Your task to perform on an android device: What's the weather? Image 0: 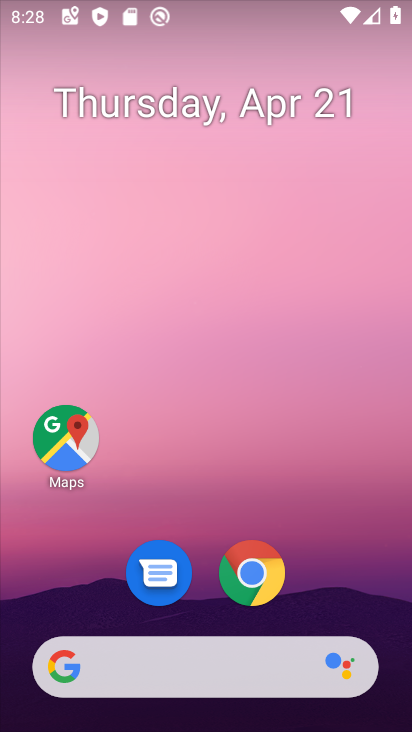
Step 0: drag from (69, 127) to (403, 197)
Your task to perform on an android device: What's the weather? Image 1: 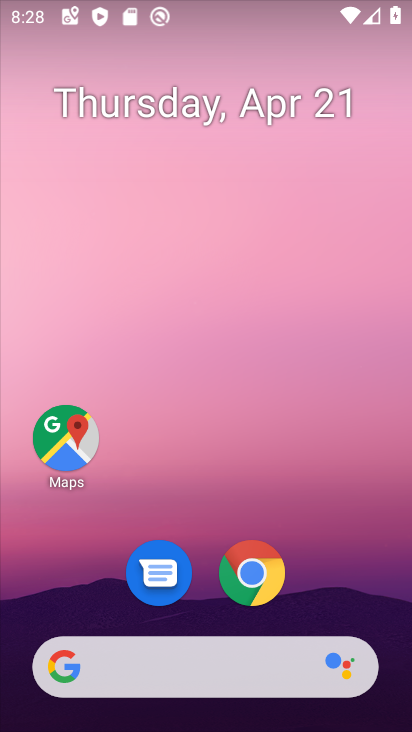
Step 1: drag from (7, 183) to (354, 0)
Your task to perform on an android device: What's the weather? Image 2: 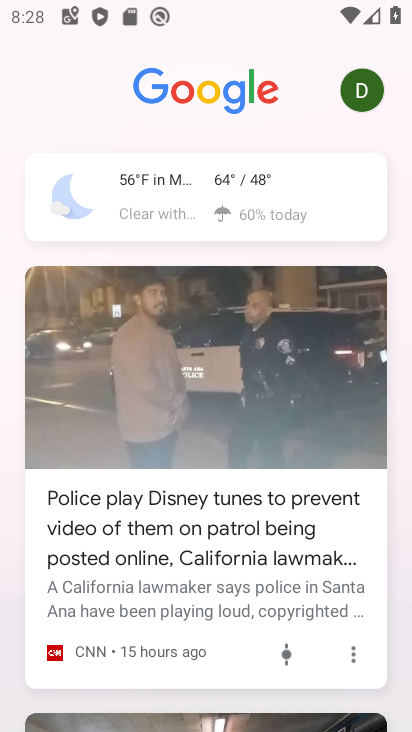
Step 2: click (248, 181)
Your task to perform on an android device: What's the weather? Image 3: 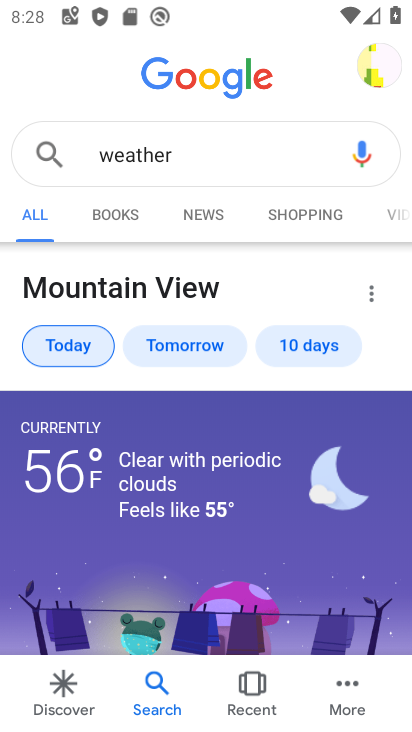
Step 3: task complete